Your task to perform on an android device: change keyboard looks Image 0: 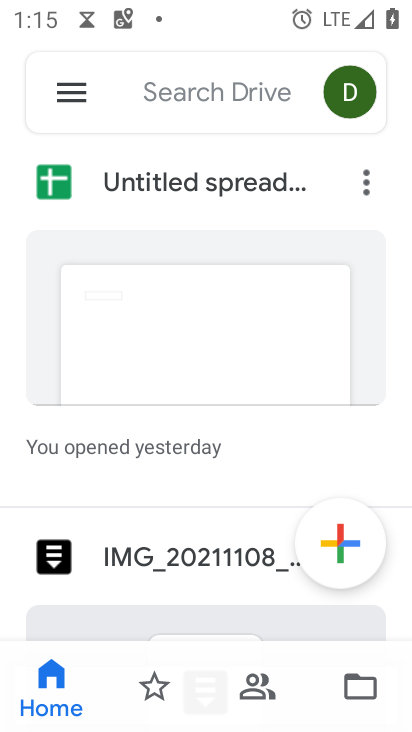
Step 0: press home button
Your task to perform on an android device: change keyboard looks Image 1: 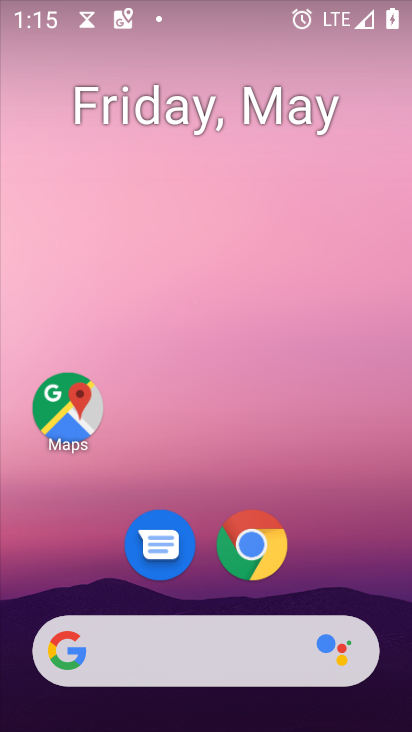
Step 1: drag from (328, 580) to (200, 162)
Your task to perform on an android device: change keyboard looks Image 2: 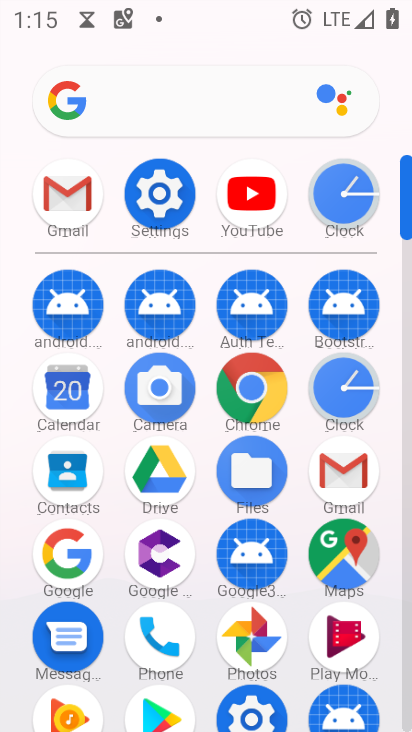
Step 2: click (169, 171)
Your task to perform on an android device: change keyboard looks Image 3: 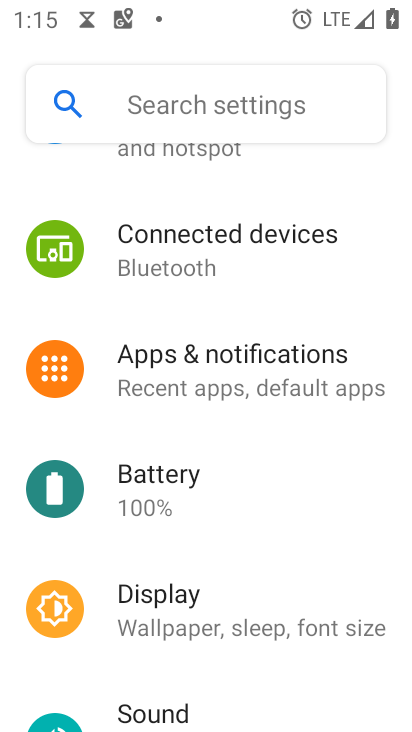
Step 3: drag from (261, 631) to (234, 229)
Your task to perform on an android device: change keyboard looks Image 4: 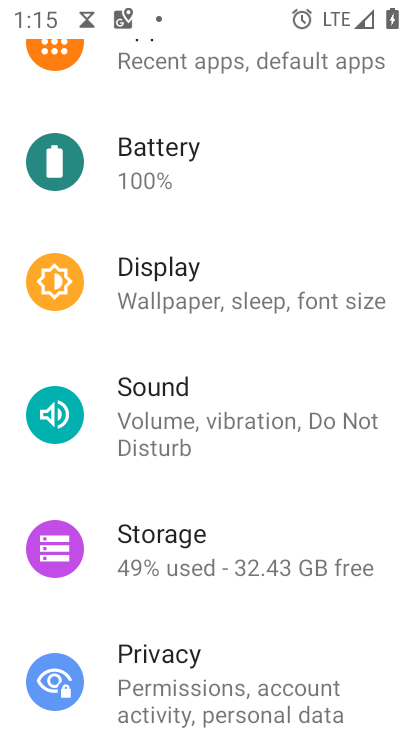
Step 4: drag from (226, 653) to (236, 293)
Your task to perform on an android device: change keyboard looks Image 5: 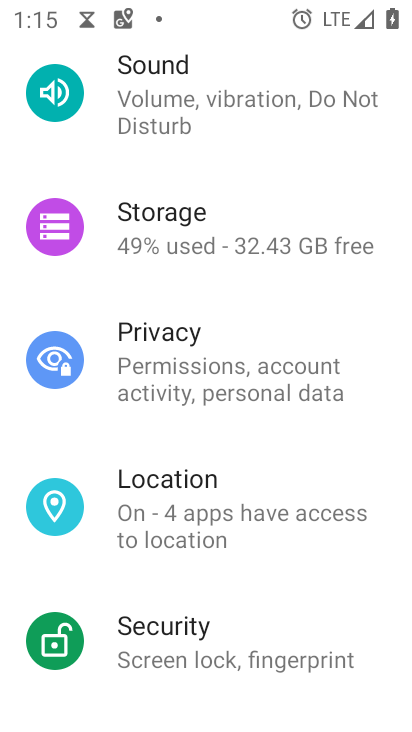
Step 5: drag from (285, 592) to (277, 277)
Your task to perform on an android device: change keyboard looks Image 6: 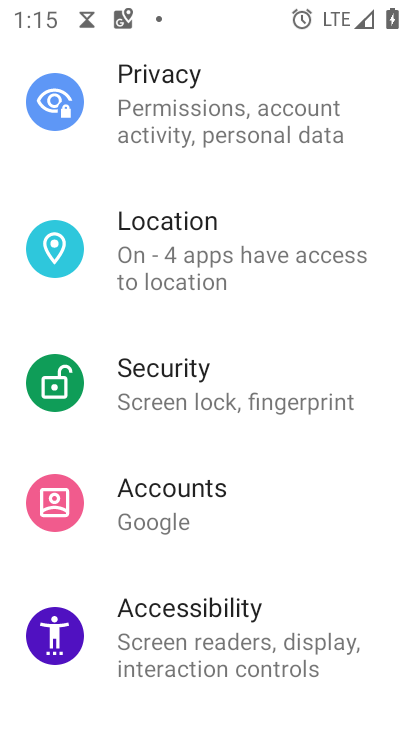
Step 6: drag from (254, 537) to (261, 280)
Your task to perform on an android device: change keyboard looks Image 7: 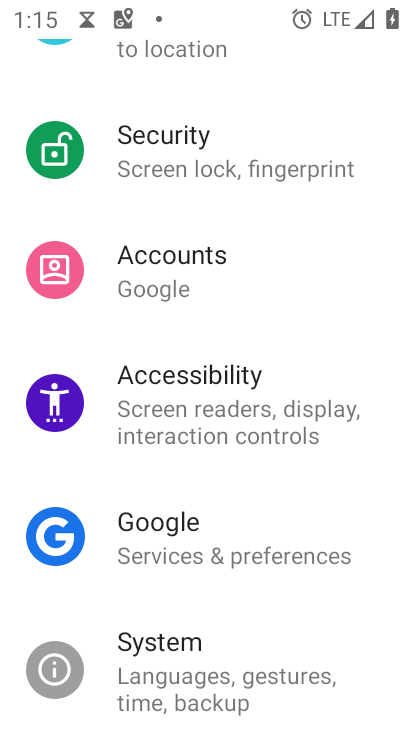
Step 7: drag from (258, 621) to (264, 284)
Your task to perform on an android device: change keyboard looks Image 8: 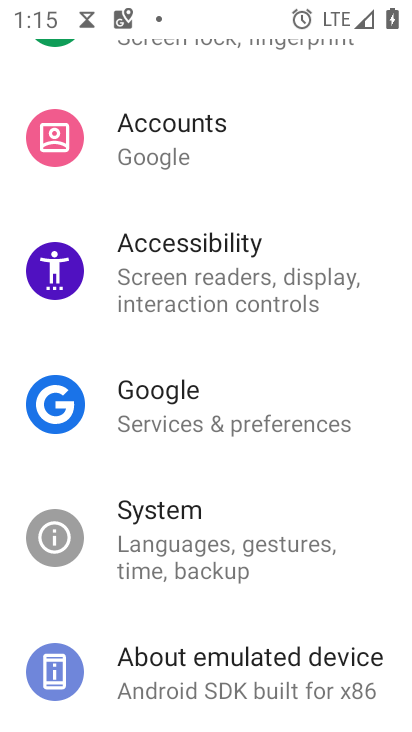
Step 8: click (188, 564)
Your task to perform on an android device: change keyboard looks Image 9: 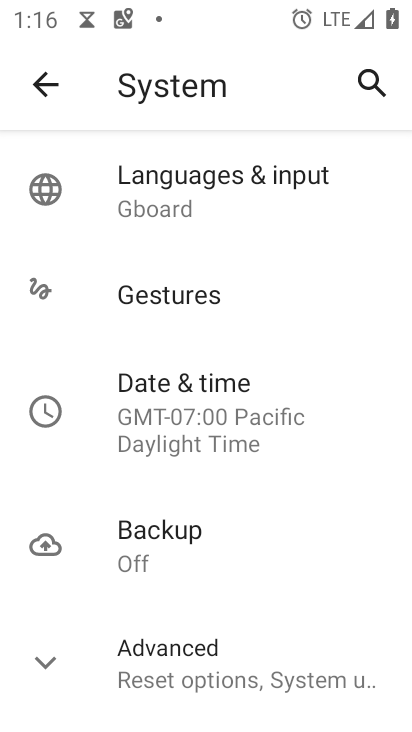
Step 9: click (202, 203)
Your task to perform on an android device: change keyboard looks Image 10: 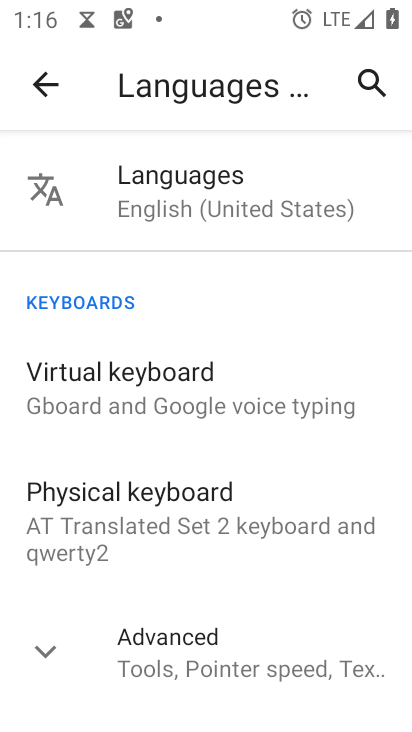
Step 10: drag from (256, 623) to (264, 331)
Your task to perform on an android device: change keyboard looks Image 11: 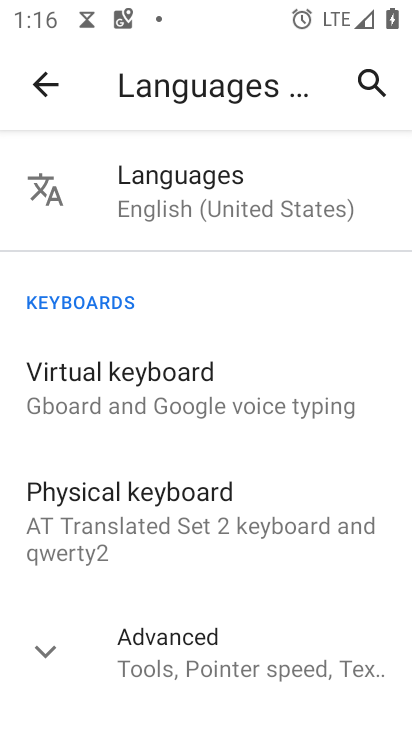
Step 11: click (193, 400)
Your task to perform on an android device: change keyboard looks Image 12: 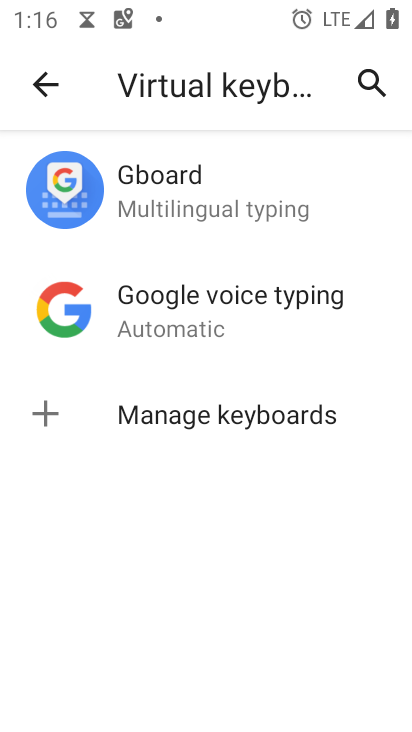
Step 12: click (210, 201)
Your task to perform on an android device: change keyboard looks Image 13: 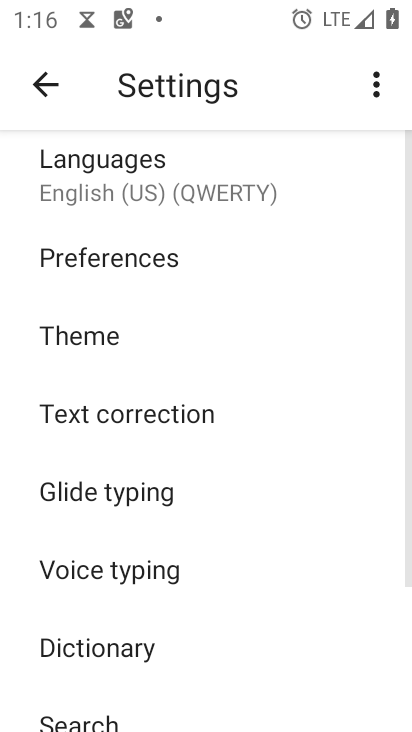
Step 13: click (100, 338)
Your task to perform on an android device: change keyboard looks Image 14: 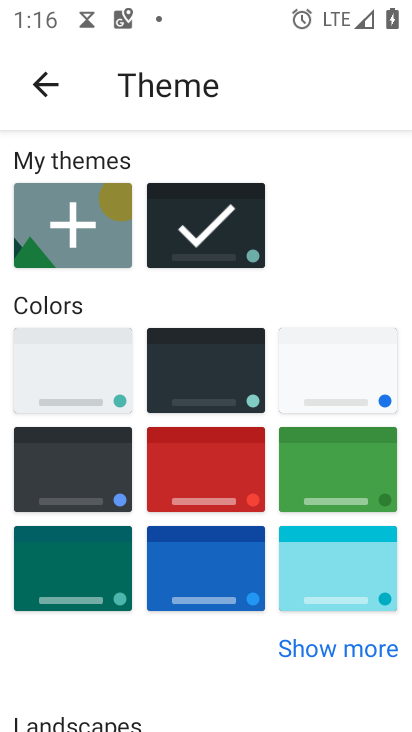
Step 14: click (331, 350)
Your task to perform on an android device: change keyboard looks Image 15: 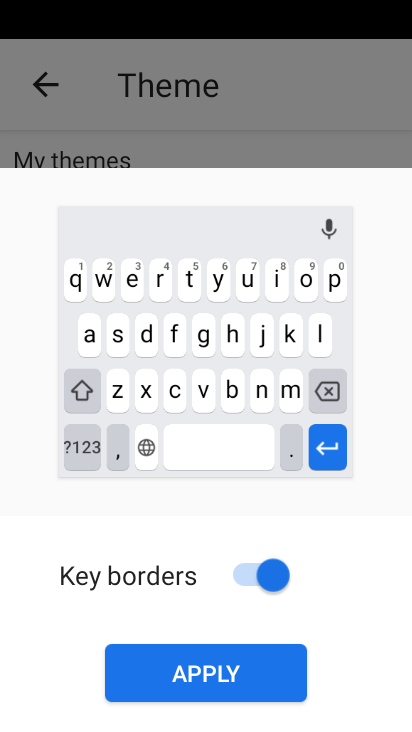
Step 15: click (229, 680)
Your task to perform on an android device: change keyboard looks Image 16: 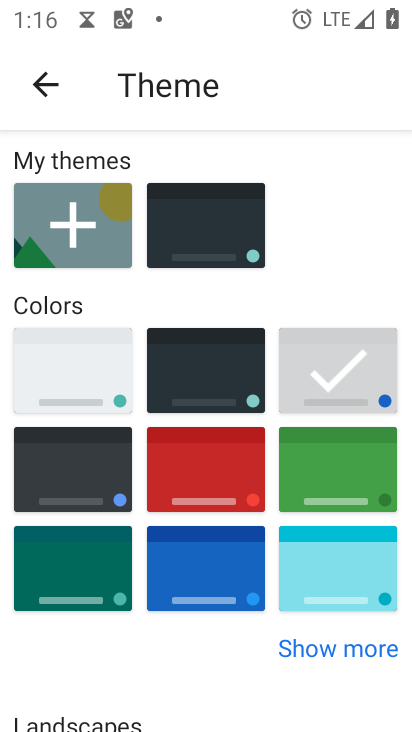
Step 16: task complete